Your task to perform on an android device: Open maps Image 0: 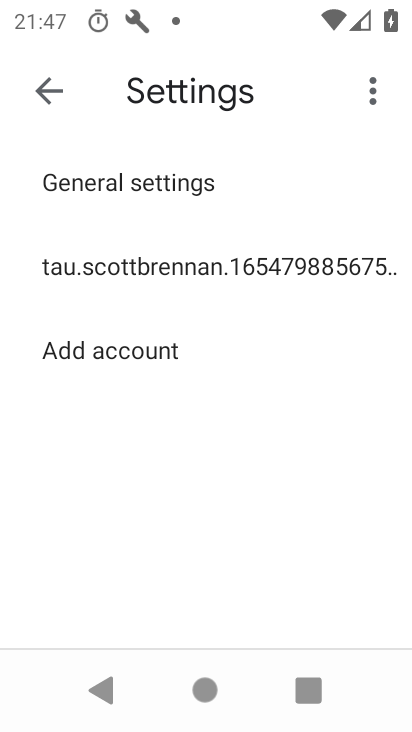
Step 0: click (53, 95)
Your task to perform on an android device: Open maps Image 1: 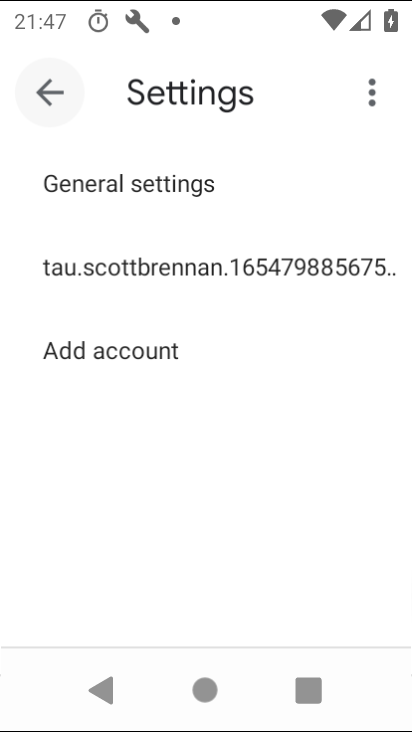
Step 1: click (53, 94)
Your task to perform on an android device: Open maps Image 2: 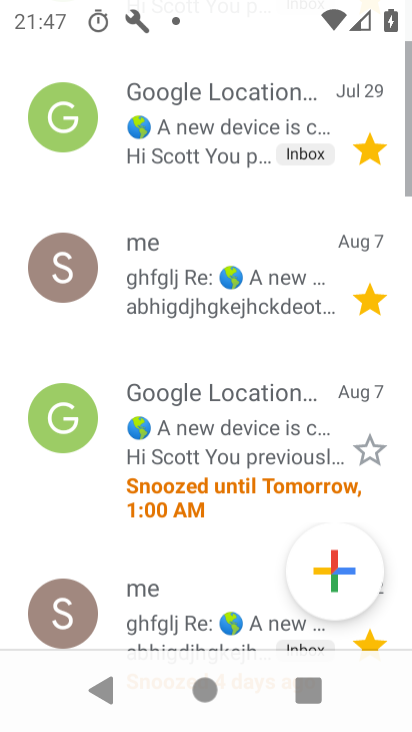
Step 2: click (51, 92)
Your task to perform on an android device: Open maps Image 3: 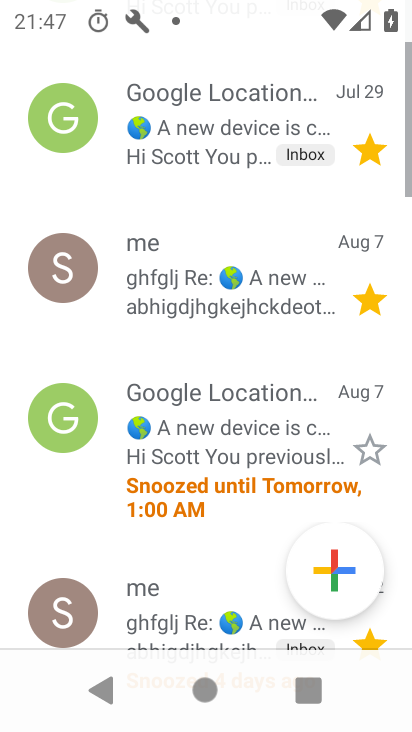
Step 3: press back button
Your task to perform on an android device: Open maps Image 4: 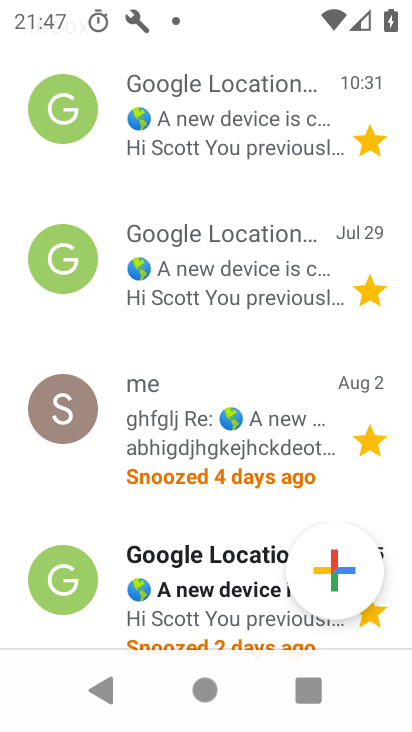
Step 4: press home button
Your task to perform on an android device: Open maps Image 5: 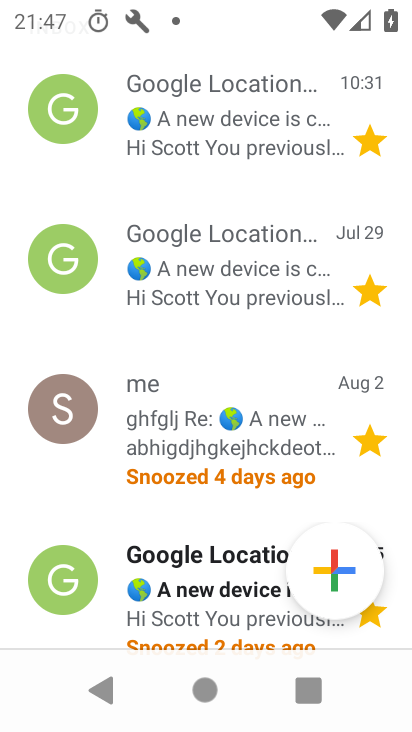
Step 5: press home button
Your task to perform on an android device: Open maps Image 6: 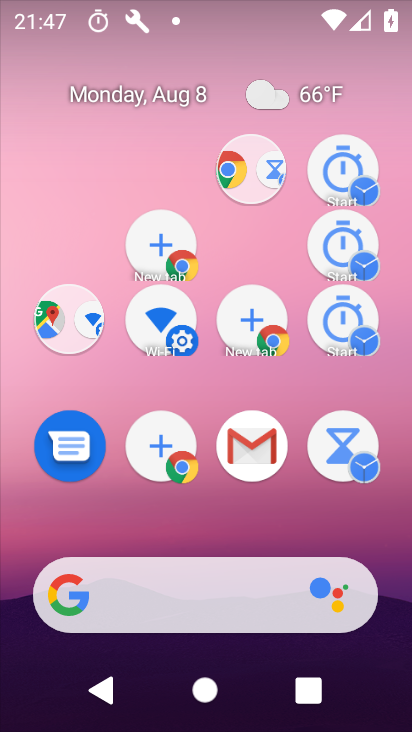
Step 6: drag from (264, 603) to (163, 49)
Your task to perform on an android device: Open maps Image 7: 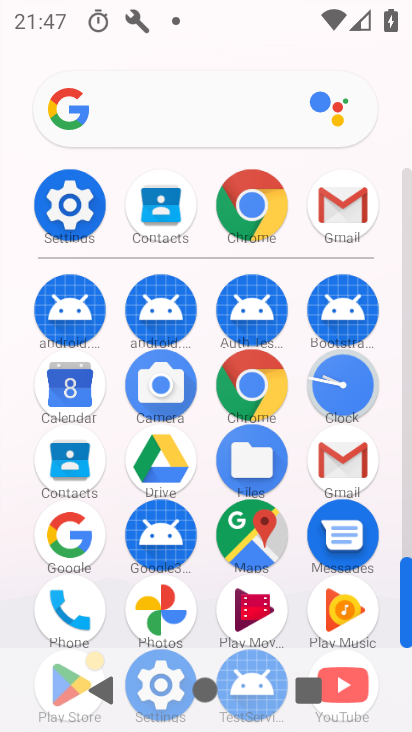
Step 7: click (254, 528)
Your task to perform on an android device: Open maps Image 8: 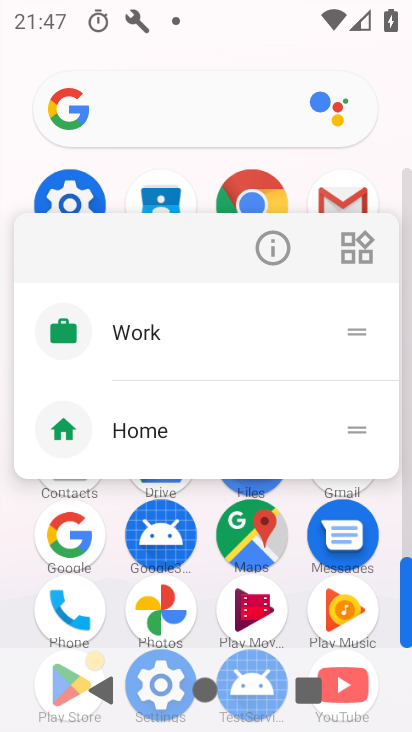
Step 8: click (241, 546)
Your task to perform on an android device: Open maps Image 9: 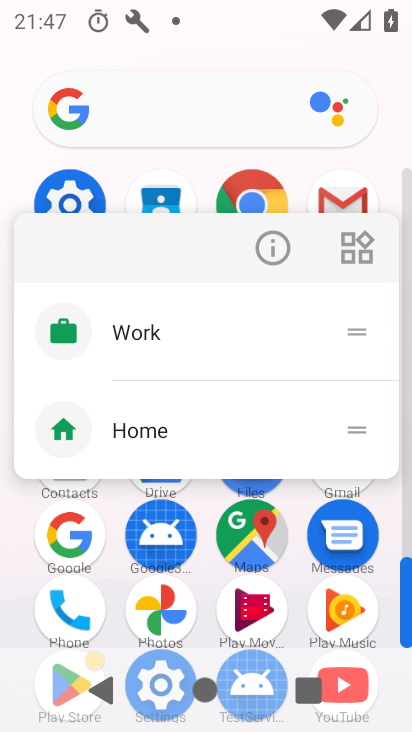
Step 9: click (246, 547)
Your task to perform on an android device: Open maps Image 10: 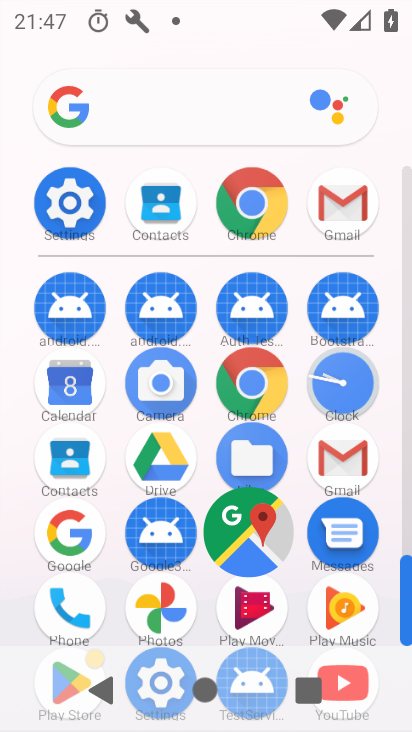
Step 10: click (247, 547)
Your task to perform on an android device: Open maps Image 11: 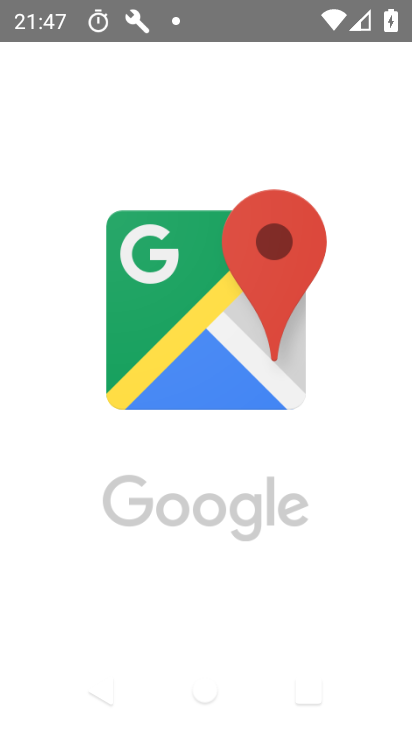
Step 11: click (195, 290)
Your task to perform on an android device: Open maps Image 12: 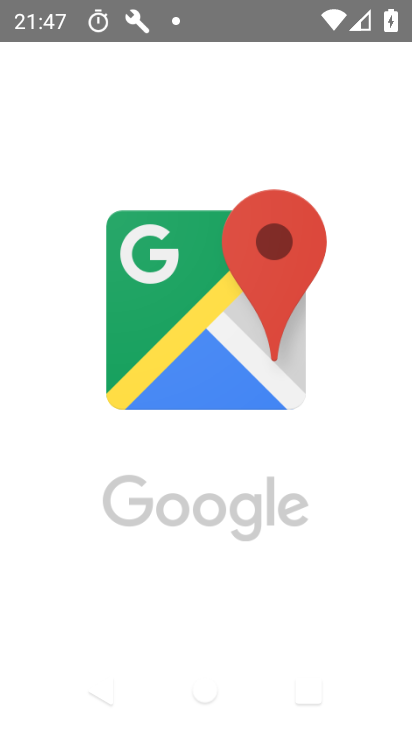
Step 12: click (199, 329)
Your task to perform on an android device: Open maps Image 13: 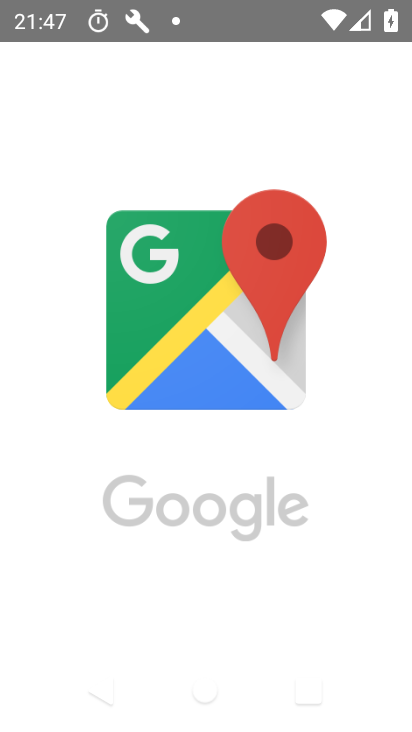
Step 13: click (210, 359)
Your task to perform on an android device: Open maps Image 14: 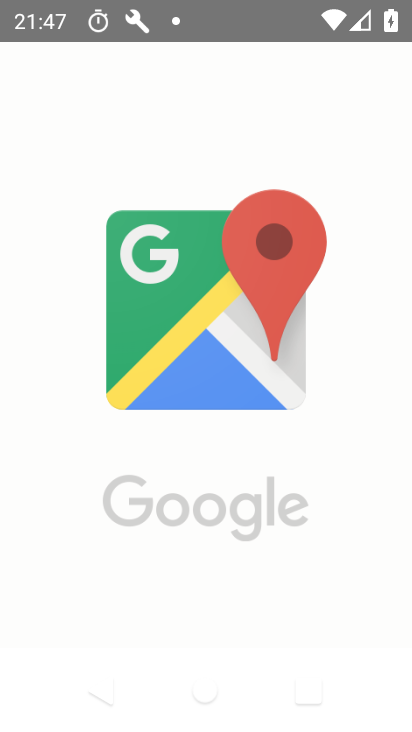
Step 14: click (225, 335)
Your task to perform on an android device: Open maps Image 15: 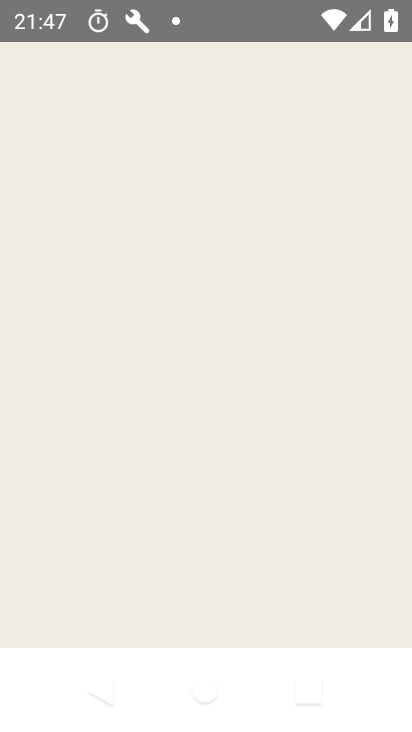
Step 15: click (231, 338)
Your task to perform on an android device: Open maps Image 16: 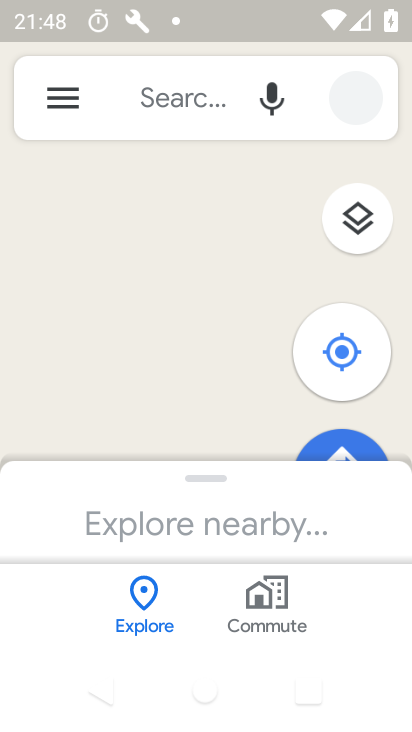
Step 16: task complete